Your task to perform on an android device: turn on airplane mode Image 0: 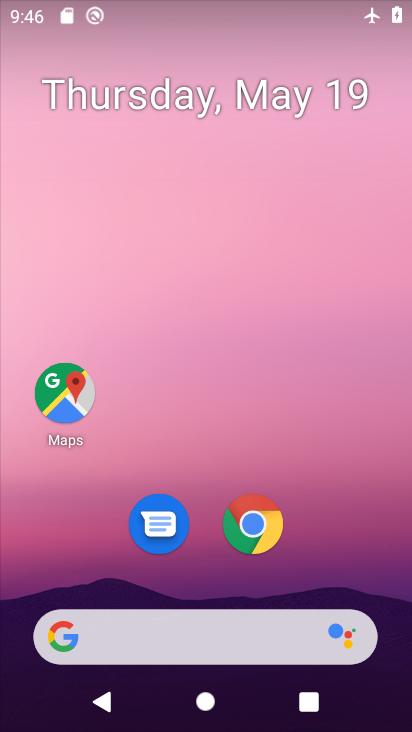
Step 0: drag from (322, 498) to (343, 16)
Your task to perform on an android device: turn on airplane mode Image 1: 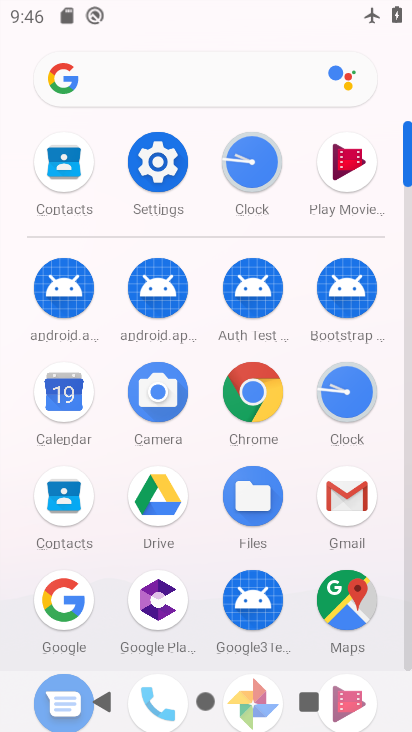
Step 1: click (174, 165)
Your task to perform on an android device: turn on airplane mode Image 2: 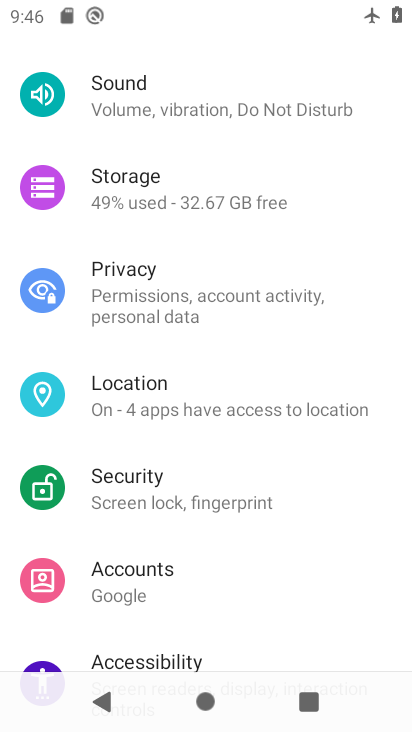
Step 2: drag from (215, 249) to (213, 630)
Your task to perform on an android device: turn on airplane mode Image 3: 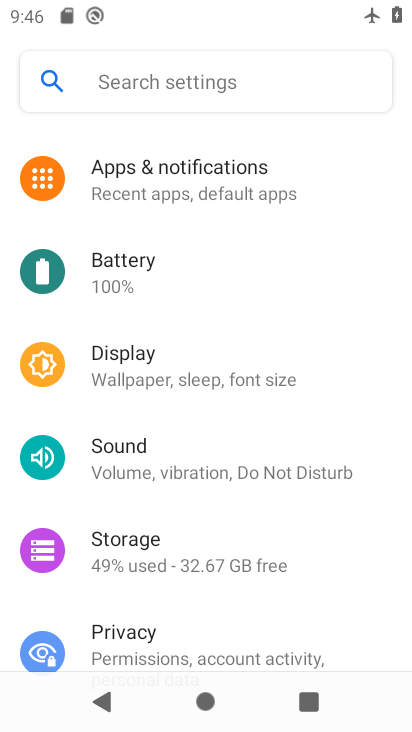
Step 3: drag from (218, 256) to (209, 601)
Your task to perform on an android device: turn on airplane mode Image 4: 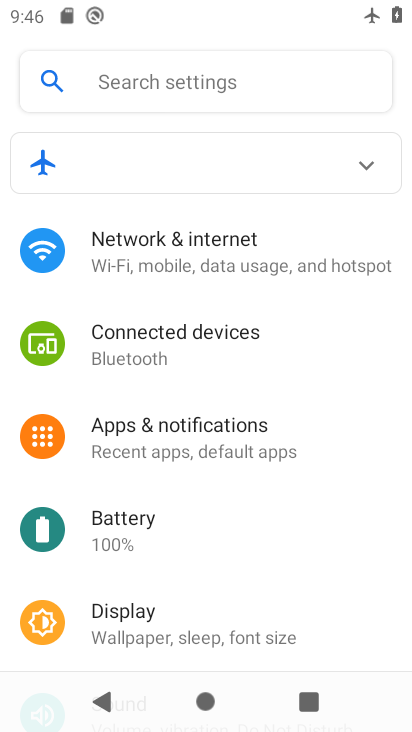
Step 4: click (218, 253)
Your task to perform on an android device: turn on airplane mode Image 5: 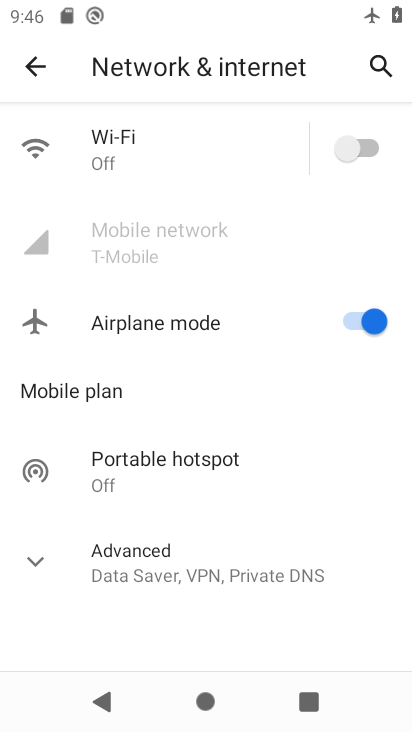
Step 5: task complete